Your task to perform on an android device: check battery use Image 0: 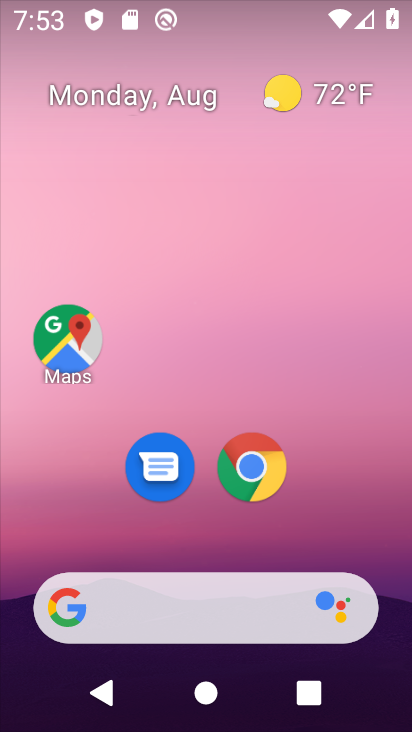
Step 0: press home button
Your task to perform on an android device: check battery use Image 1: 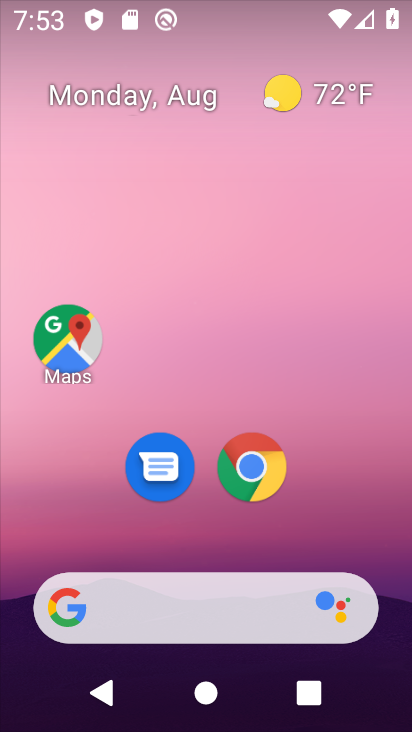
Step 1: drag from (346, 540) to (358, 153)
Your task to perform on an android device: check battery use Image 2: 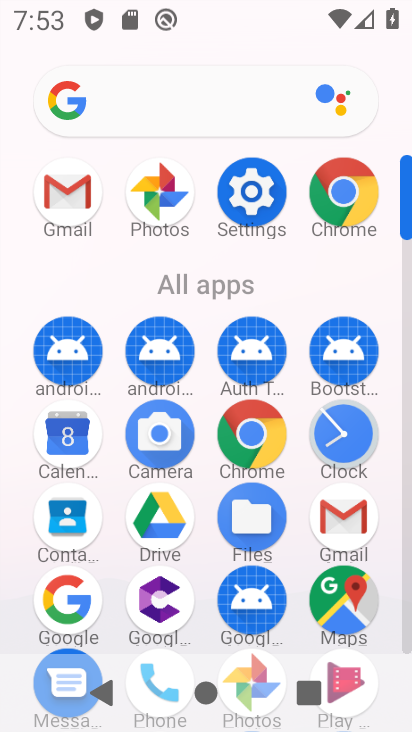
Step 2: click (257, 190)
Your task to perform on an android device: check battery use Image 3: 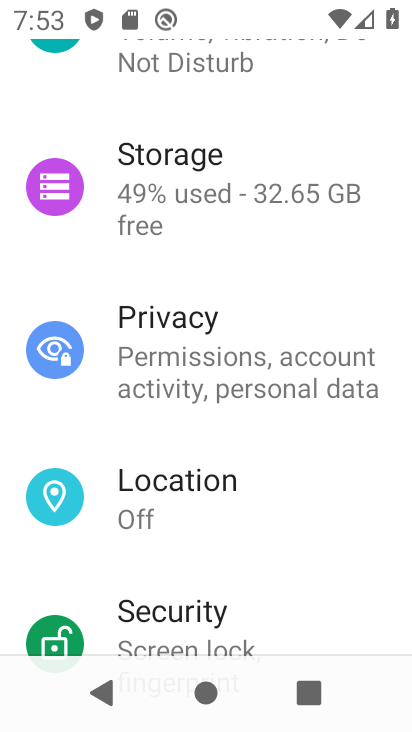
Step 3: drag from (389, 150) to (382, 255)
Your task to perform on an android device: check battery use Image 4: 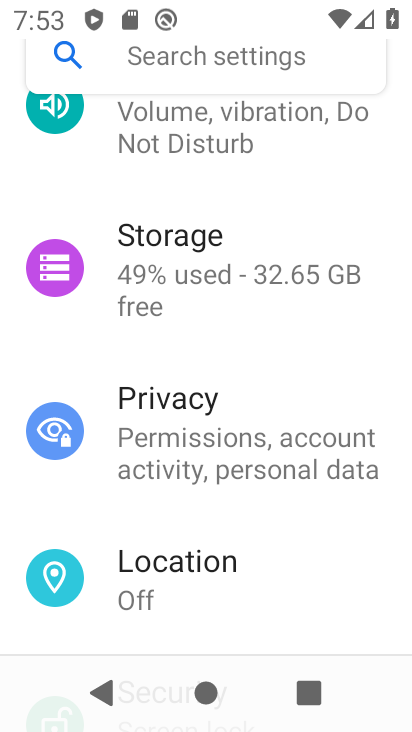
Step 4: drag from (376, 131) to (377, 272)
Your task to perform on an android device: check battery use Image 5: 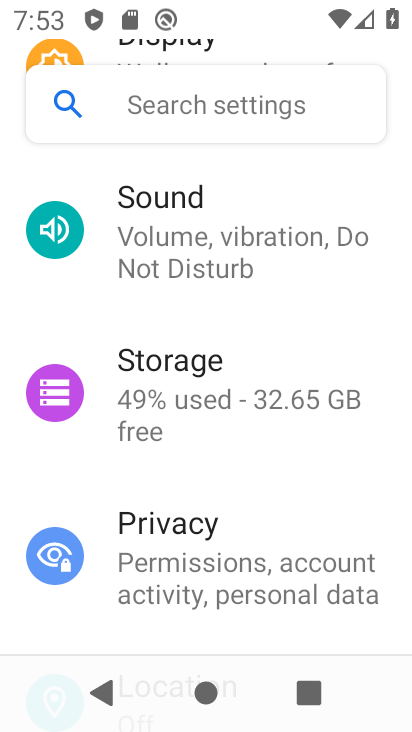
Step 5: drag from (394, 151) to (389, 325)
Your task to perform on an android device: check battery use Image 6: 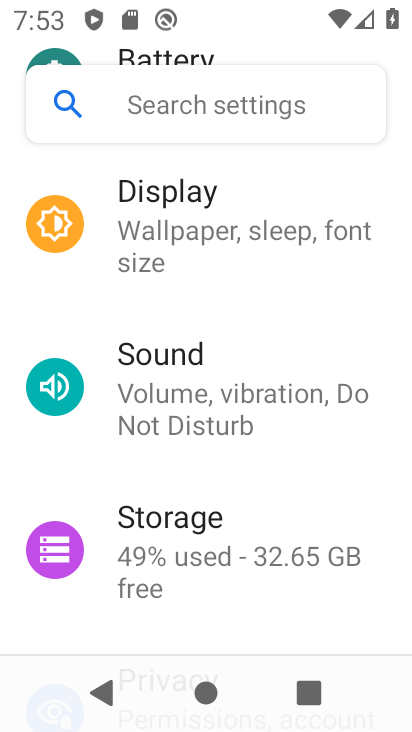
Step 6: drag from (389, 149) to (387, 302)
Your task to perform on an android device: check battery use Image 7: 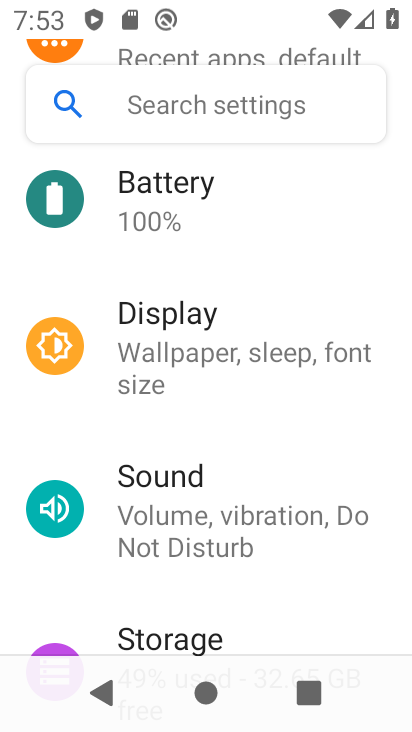
Step 7: drag from (389, 154) to (381, 304)
Your task to perform on an android device: check battery use Image 8: 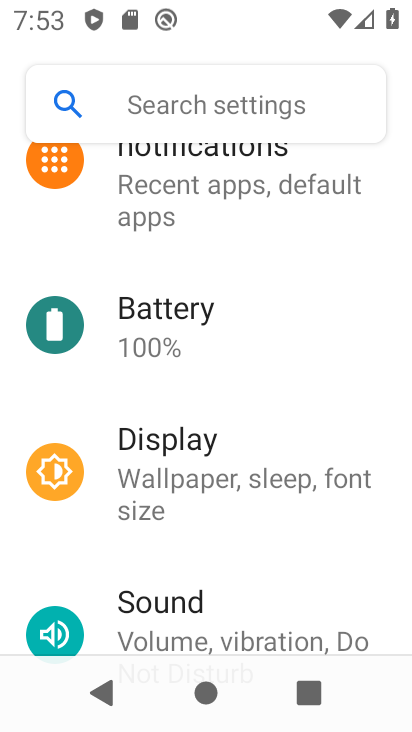
Step 8: drag from (394, 160) to (378, 300)
Your task to perform on an android device: check battery use Image 9: 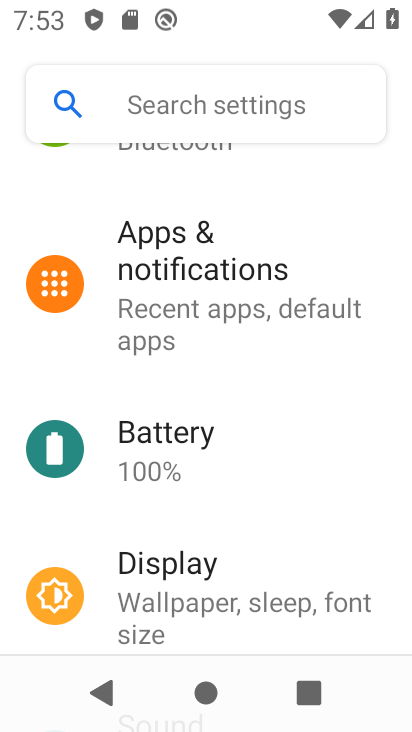
Step 9: click (205, 446)
Your task to perform on an android device: check battery use Image 10: 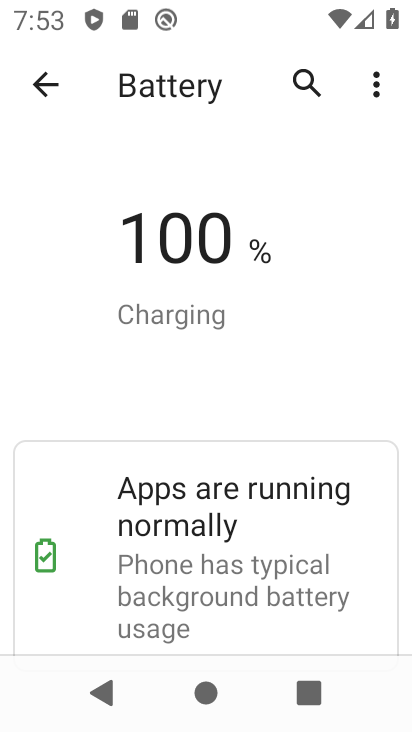
Step 10: click (378, 91)
Your task to perform on an android device: check battery use Image 11: 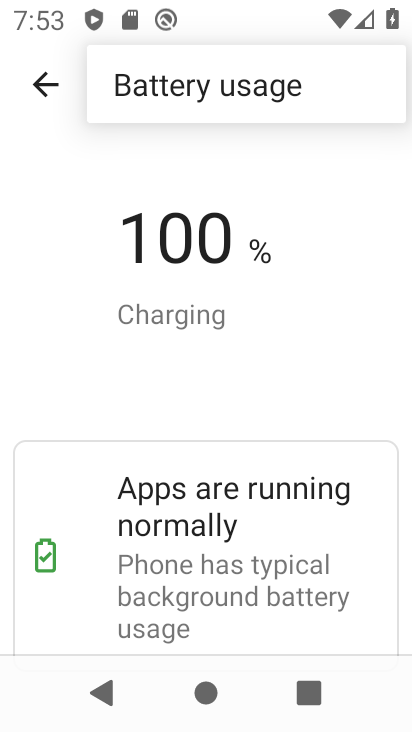
Step 11: click (280, 84)
Your task to perform on an android device: check battery use Image 12: 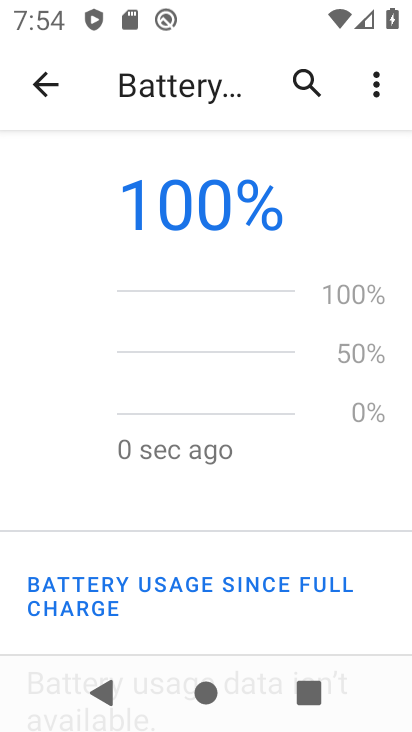
Step 12: task complete